Your task to perform on an android device: turn vacation reply on in the gmail app Image 0: 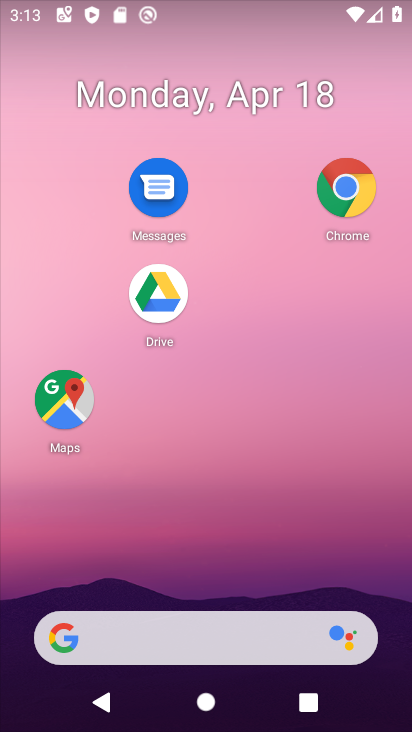
Step 0: drag from (168, 449) to (261, 4)
Your task to perform on an android device: turn vacation reply on in the gmail app Image 1: 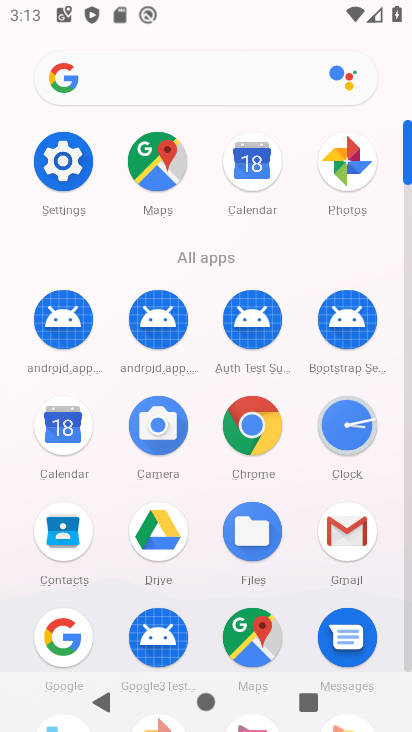
Step 1: click (349, 527)
Your task to perform on an android device: turn vacation reply on in the gmail app Image 2: 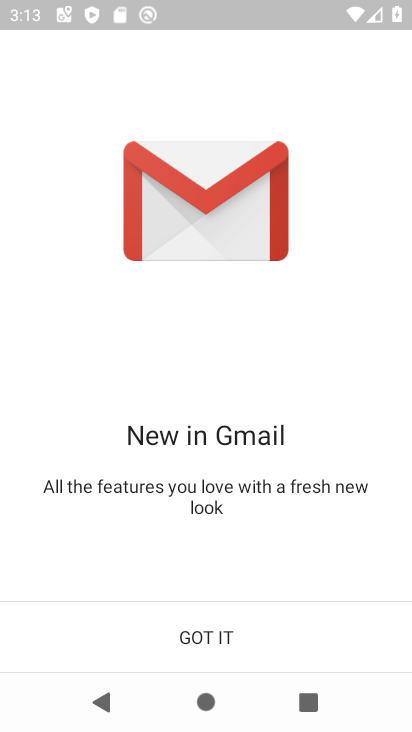
Step 2: click (220, 638)
Your task to perform on an android device: turn vacation reply on in the gmail app Image 3: 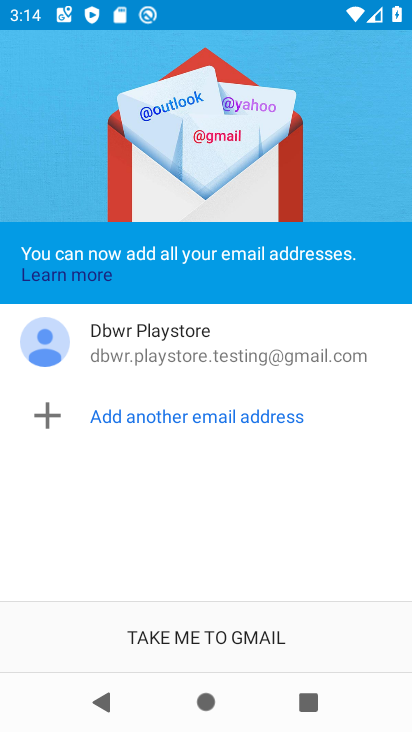
Step 3: click (220, 638)
Your task to perform on an android device: turn vacation reply on in the gmail app Image 4: 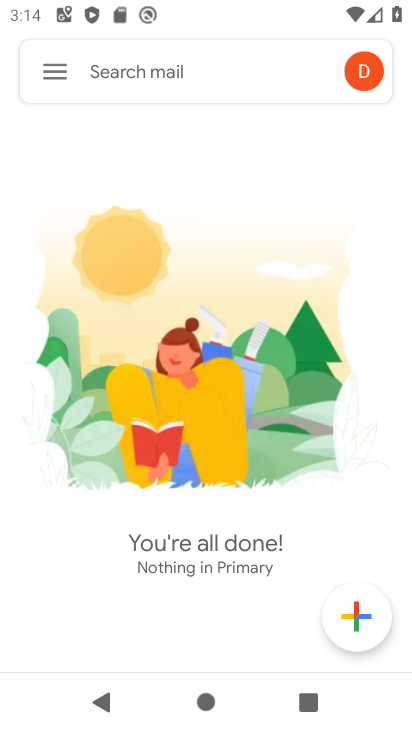
Step 4: click (55, 68)
Your task to perform on an android device: turn vacation reply on in the gmail app Image 5: 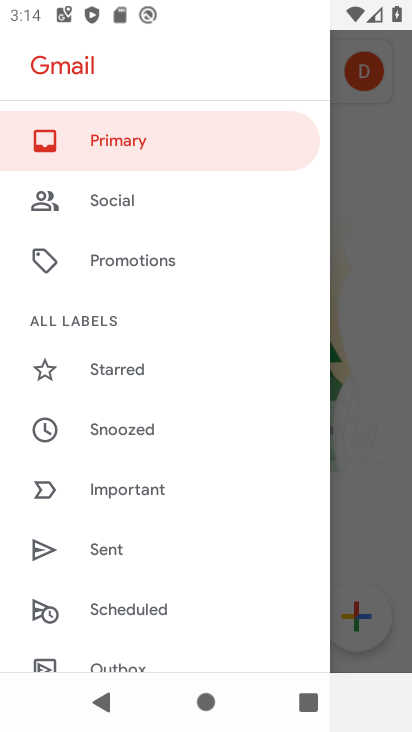
Step 5: drag from (148, 405) to (167, 302)
Your task to perform on an android device: turn vacation reply on in the gmail app Image 6: 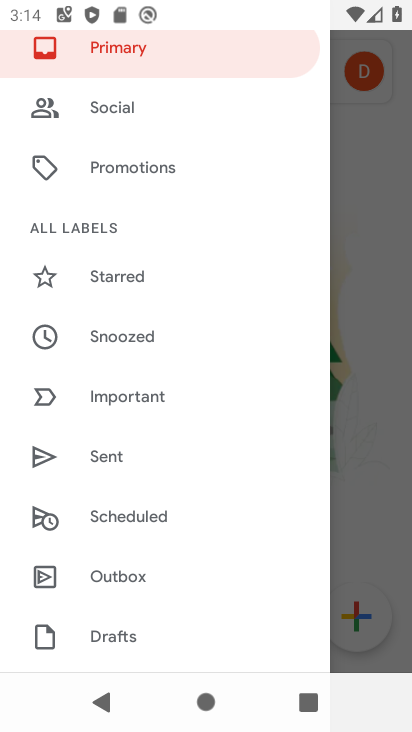
Step 6: drag from (139, 507) to (174, 357)
Your task to perform on an android device: turn vacation reply on in the gmail app Image 7: 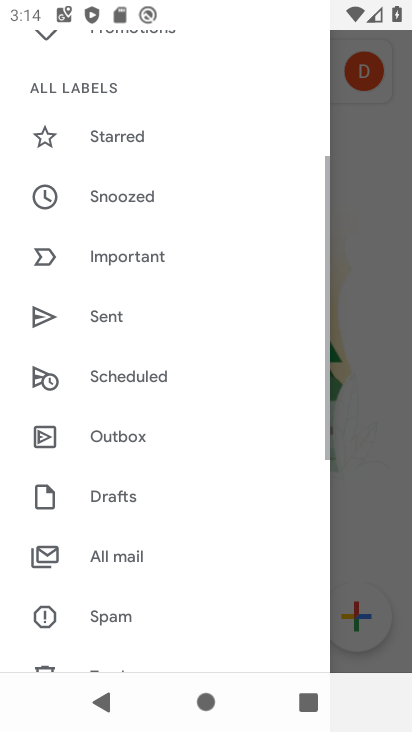
Step 7: drag from (170, 495) to (171, 379)
Your task to perform on an android device: turn vacation reply on in the gmail app Image 8: 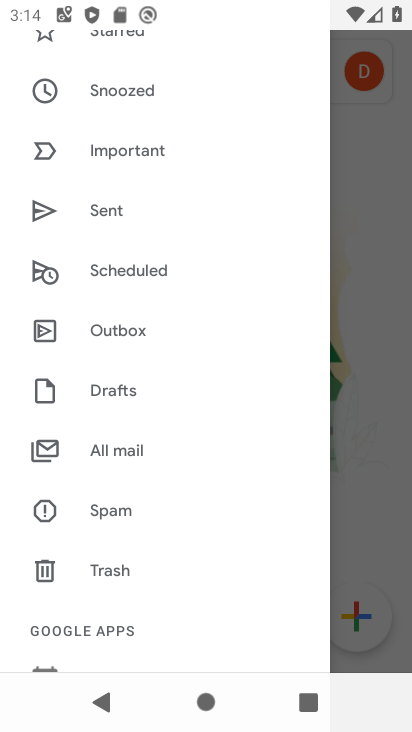
Step 8: drag from (201, 511) to (213, 431)
Your task to perform on an android device: turn vacation reply on in the gmail app Image 9: 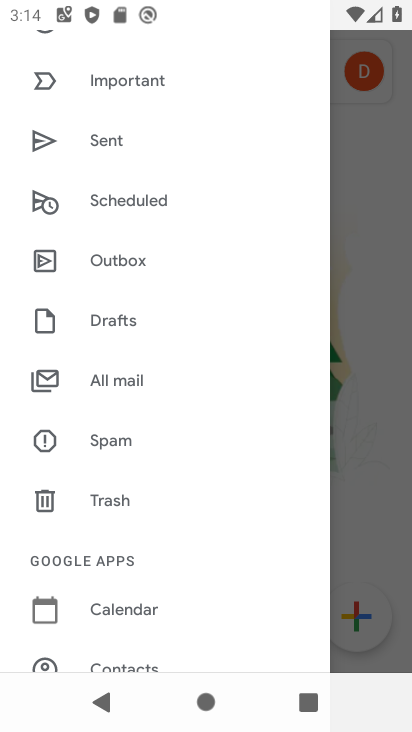
Step 9: drag from (186, 591) to (204, 458)
Your task to perform on an android device: turn vacation reply on in the gmail app Image 10: 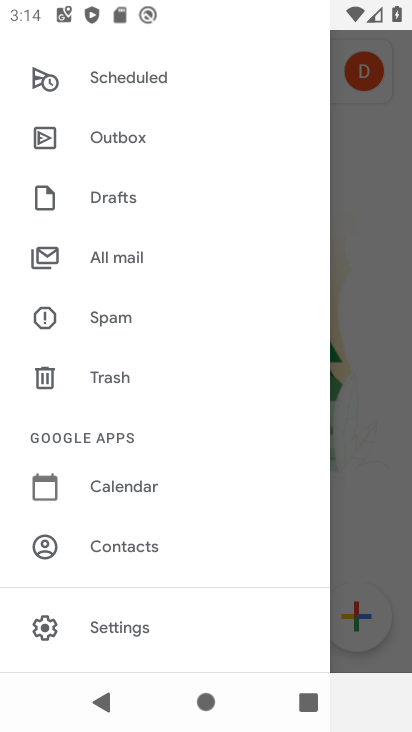
Step 10: click (136, 627)
Your task to perform on an android device: turn vacation reply on in the gmail app Image 11: 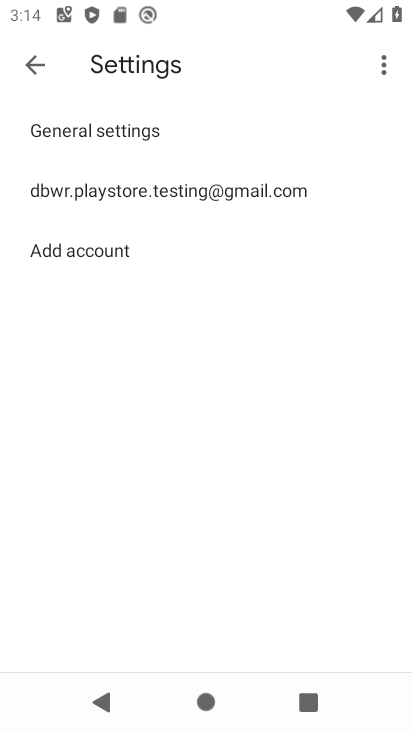
Step 11: click (197, 194)
Your task to perform on an android device: turn vacation reply on in the gmail app Image 12: 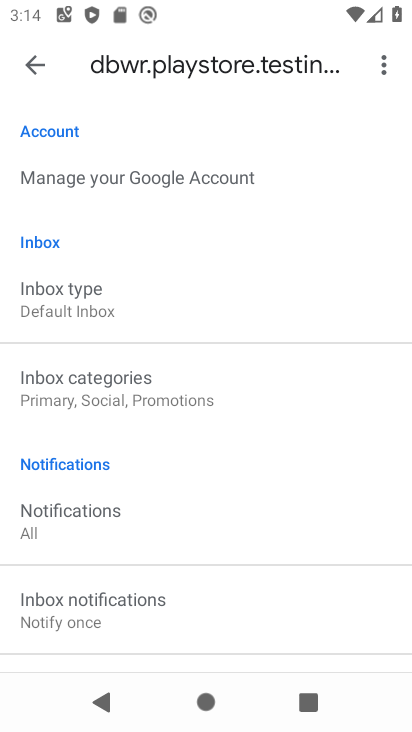
Step 12: drag from (174, 406) to (223, 296)
Your task to perform on an android device: turn vacation reply on in the gmail app Image 13: 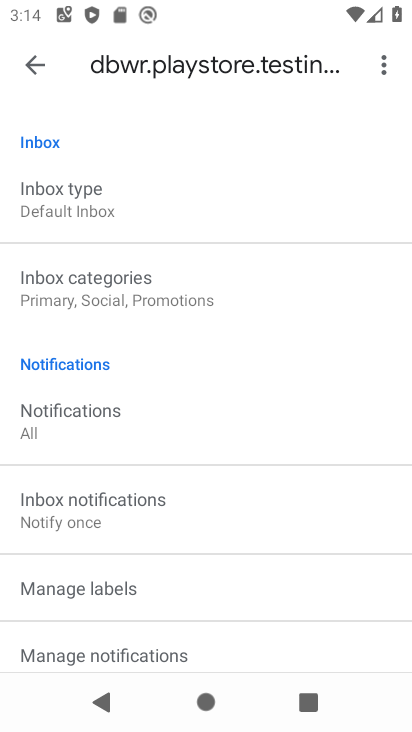
Step 13: drag from (217, 477) to (247, 369)
Your task to perform on an android device: turn vacation reply on in the gmail app Image 14: 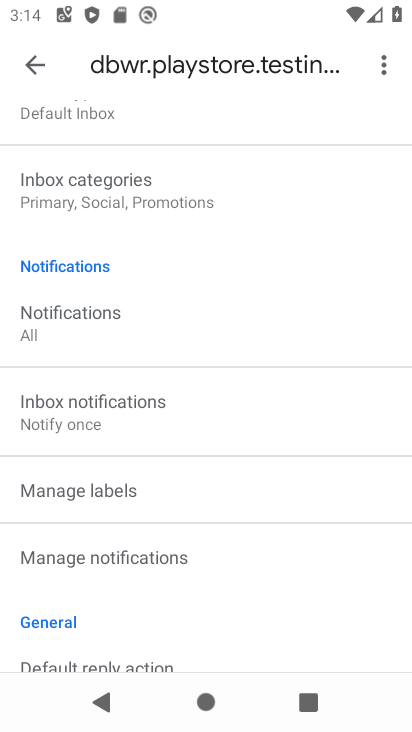
Step 14: drag from (211, 558) to (228, 466)
Your task to perform on an android device: turn vacation reply on in the gmail app Image 15: 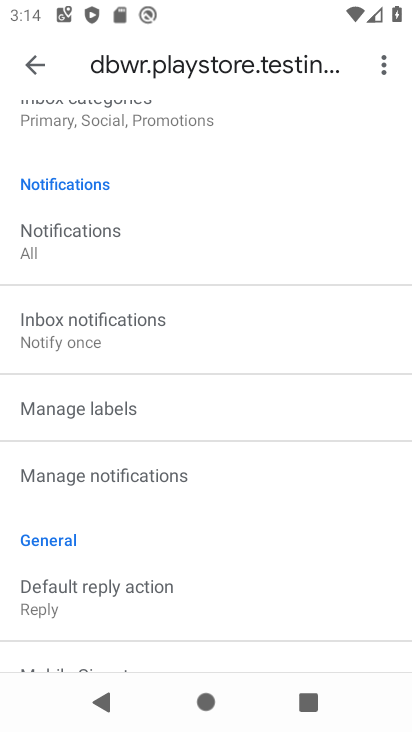
Step 15: drag from (227, 578) to (239, 482)
Your task to perform on an android device: turn vacation reply on in the gmail app Image 16: 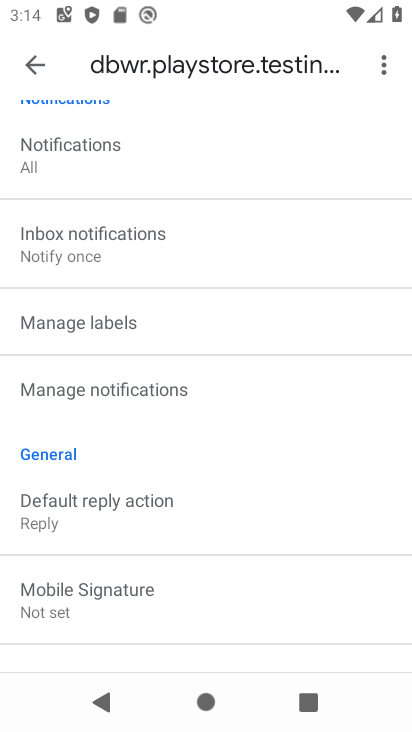
Step 16: drag from (223, 600) to (237, 507)
Your task to perform on an android device: turn vacation reply on in the gmail app Image 17: 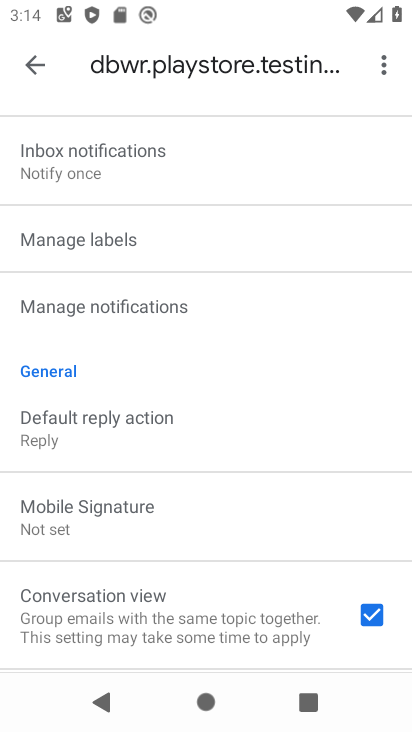
Step 17: drag from (230, 591) to (257, 485)
Your task to perform on an android device: turn vacation reply on in the gmail app Image 18: 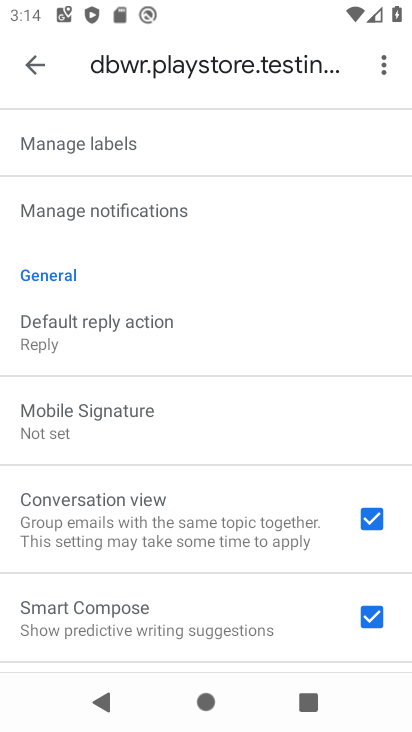
Step 18: drag from (226, 618) to (254, 541)
Your task to perform on an android device: turn vacation reply on in the gmail app Image 19: 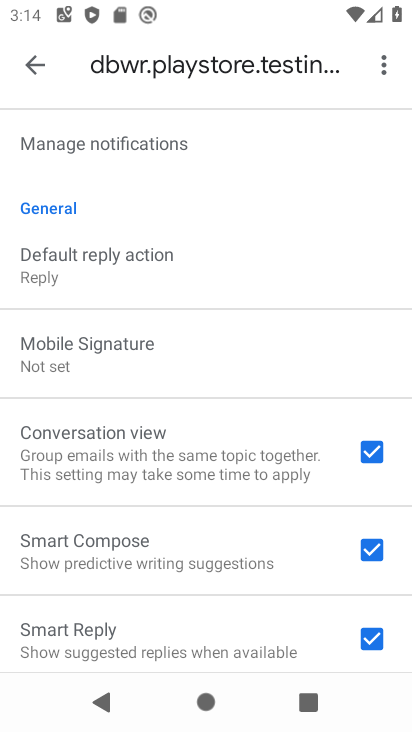
Step 19: drag from (249, 643) to (263, 557)
Your task to perform on an android device: turn vacation reply on in the gmail app Image 20: 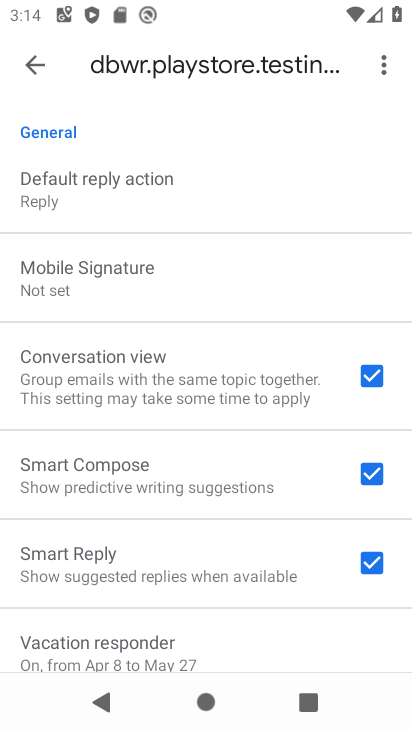
Step 20: drag from (222, 660) to (266, 553)
Your task to perform on an android device: turn vacation reply on in the gmail app Image 21: 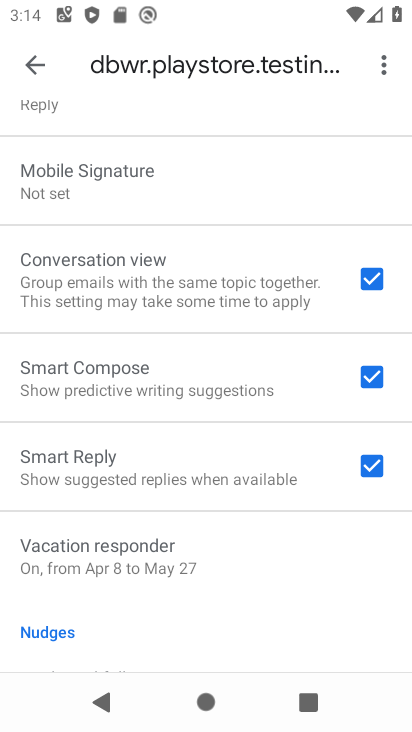
Step 21: click (140, 571)
Your task to perform on an android device: turn vacation reply on in the gmail app Image 22: 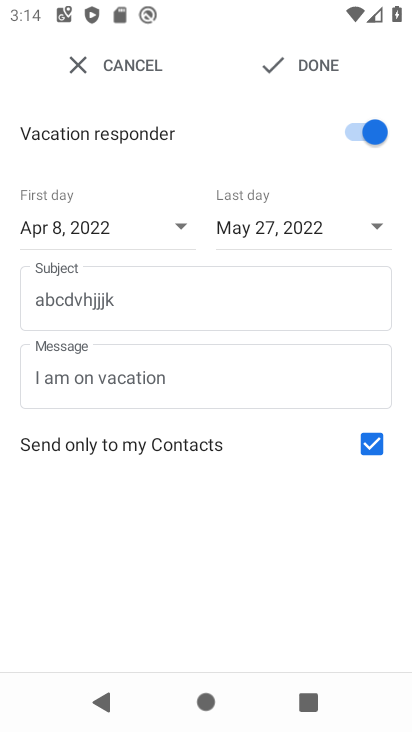
Step 22: task complete